Your task to perform on an android device: toggle pop-ups in chrome Image 0: 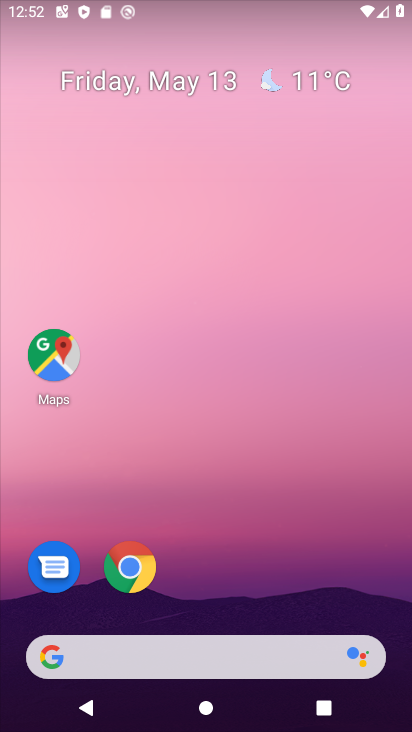
Step 0: click (135, 570)
Your task to perform on an android device: toggle pop-ups in chrome Image 1: 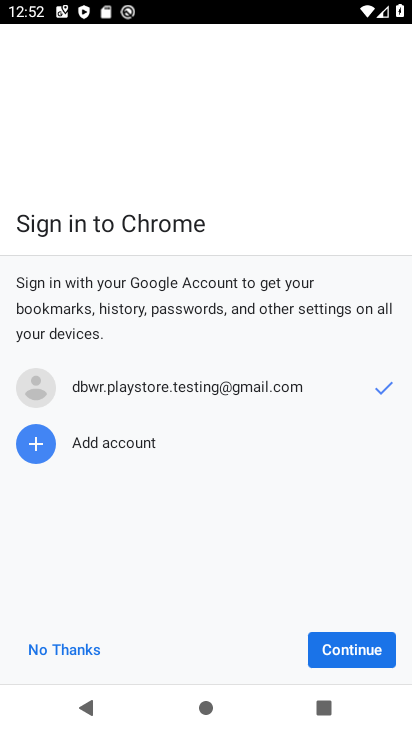
Step 1: click (353, 651)
Your task to perform on an android device: toggle pop-ups in chrome Image 2: 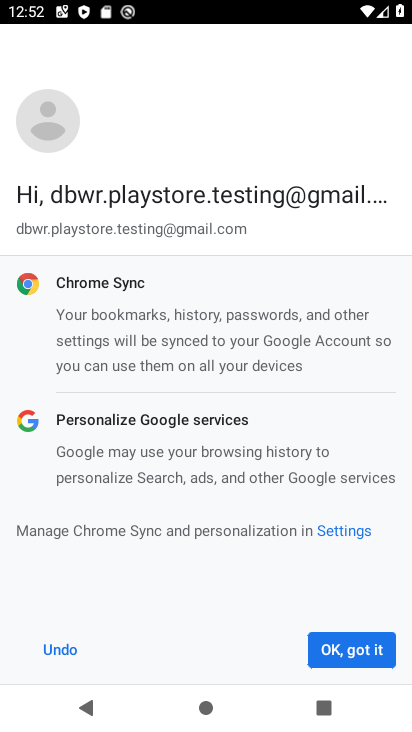
Step 2: click (380, 640)
Your task to perform on an android device: toggle pop-ups in chrome Image 3: 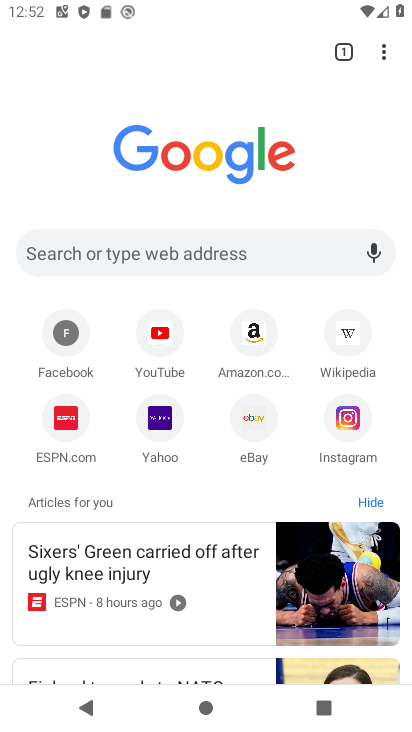
Step 3: drag from (390, 61) to (273, 441)
Your task to perform on an android device: toggle pop-ups in chrome Image 4: 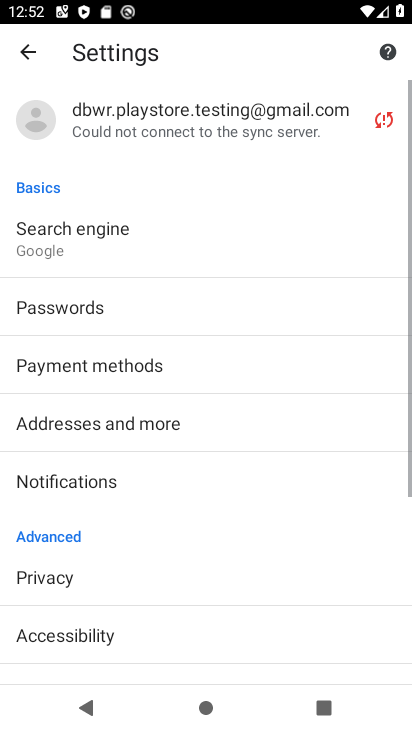
Step 4: drag from (210, 615) to (296, 309)
Your task to perform on an android device: toggle pop-ups in chrome Image 5: 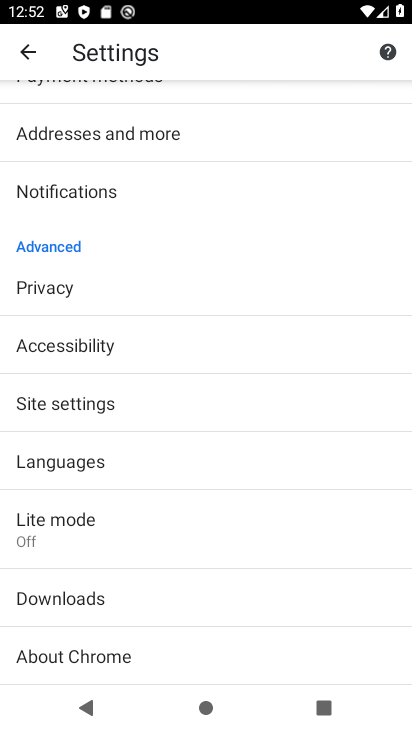
Step 5: click (115, 406)
Your task to perform on an android device: toggle pop-ups in chrome Image 6: 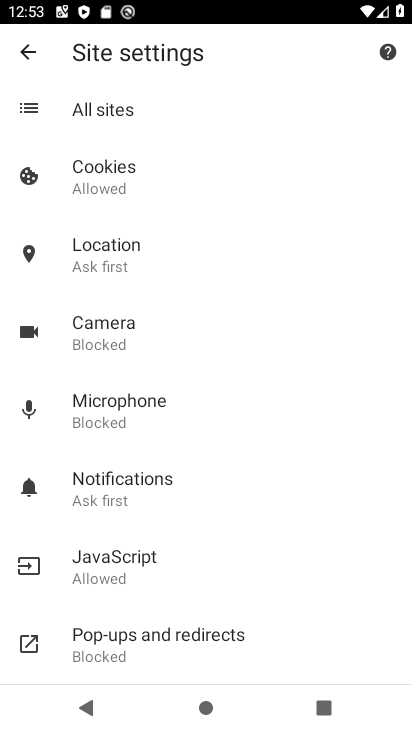
Step 6: drag from (191, 631) to (262, 426)
Your task to perform on an android device: toggle pop-ups in chrome Image 7: 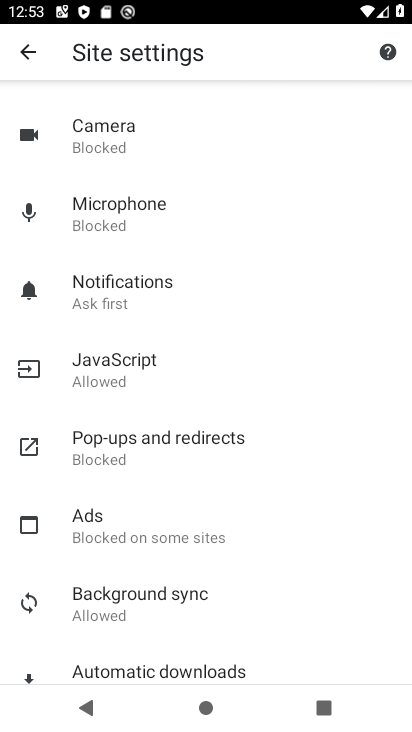
Step 7: click (235, 449)
Your task to perform on an android device: toggle pop-ups in chrome Image 8: 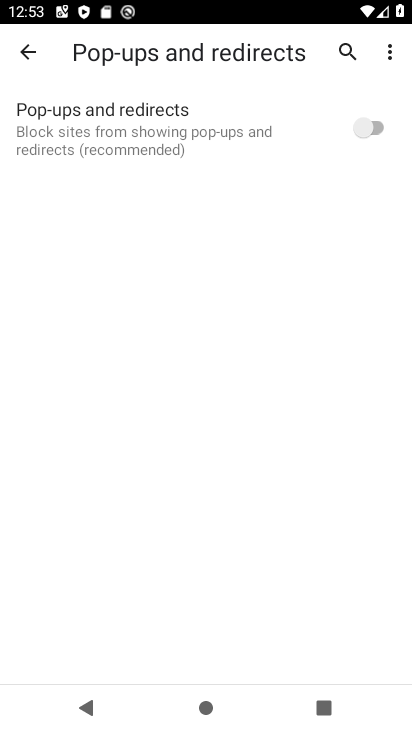
Step 8: click (394, 125)
Your task to perform on an android device: toggle pop-ups in chrome Image 9: 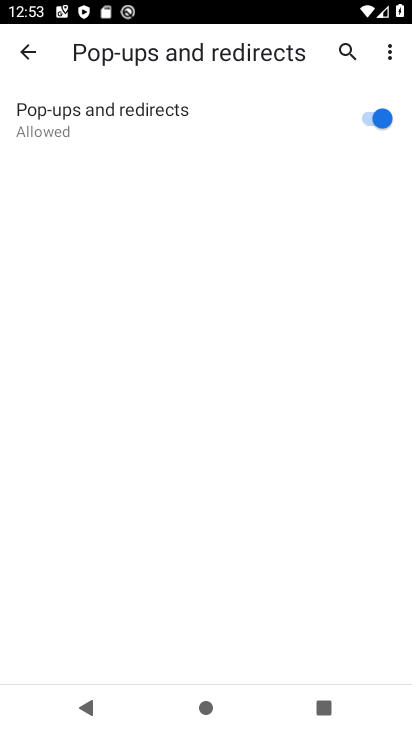
Step 9: task complete